Your task to perform on an android device: What's the weather today? Image 0: 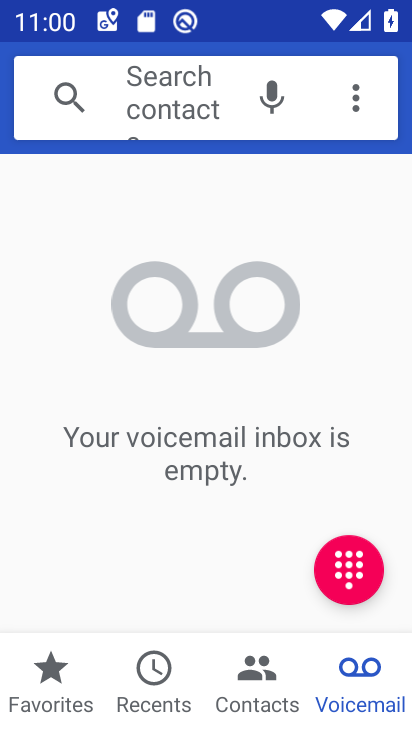
Step 0: press home button
Your task to perform on an android device: What's the weather today? Image 1: 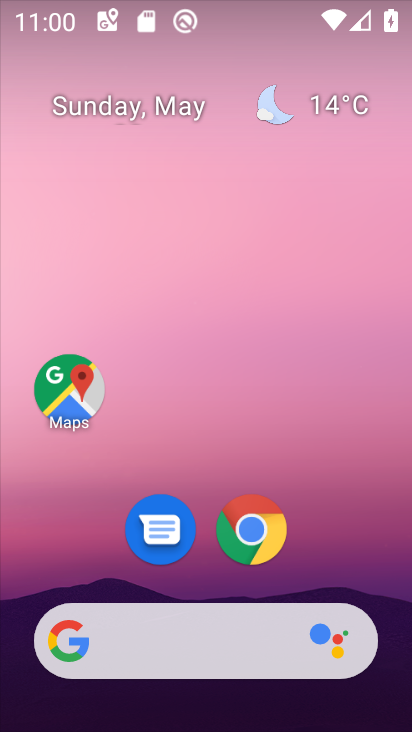
Step 1: click (325, 100)
Your task to perform on an android device: What's the weather today? Image 2: 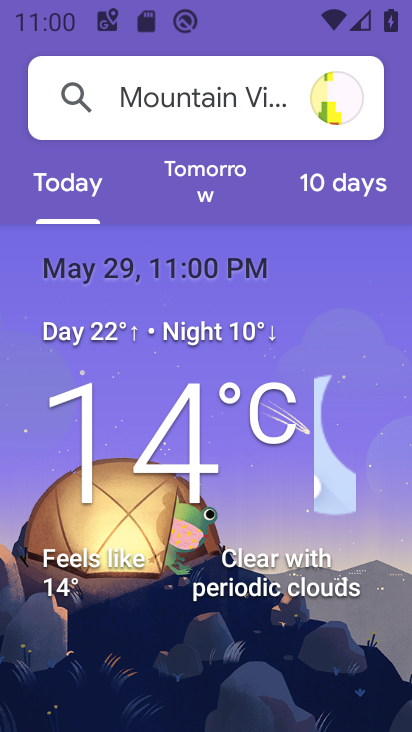
Step 2: task complete